Your task to perform on an android device: open a bookmark in the chrome app Image 0: 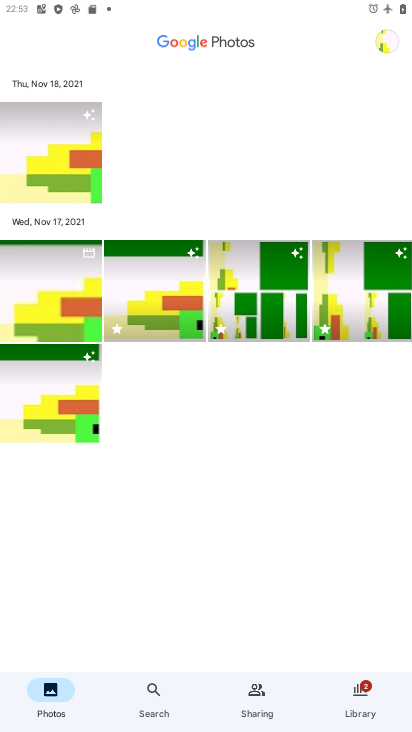
Step 0: task impossible